Your task to perform on an android device: toggle notifications settings in the gmail app Image 0: 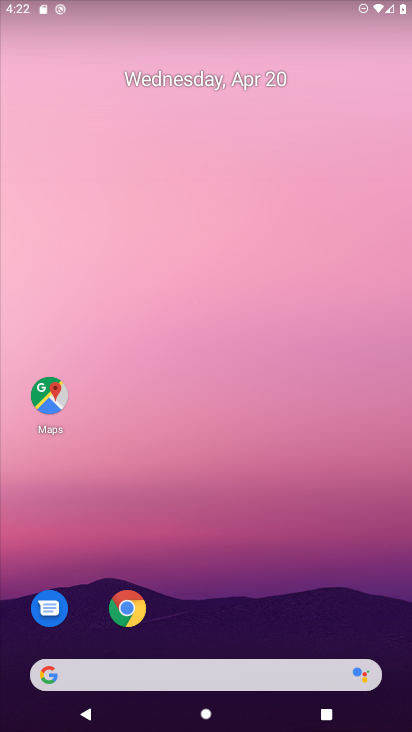
Step 0: drag from (340, 594) to (315, 75)
Your task to perform on an android device: toggle notifications settings in the gmail app Image 1: 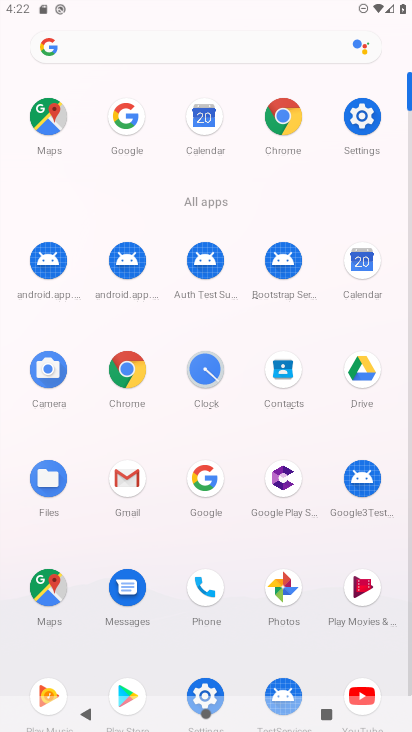
Step 1: click (130, 474)
Your task to perform on an android device: toggle notifications settings in the gmail app Image 2: 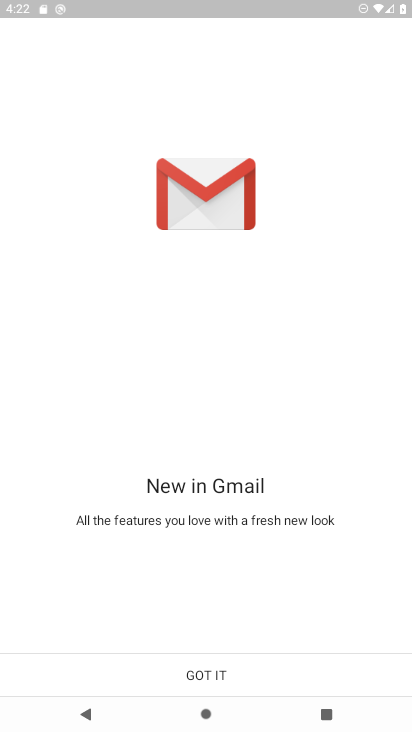
Step 2: click (215, 676)
Your task to perform on an android device: toggle notifications settings in the gmail app Image 3: 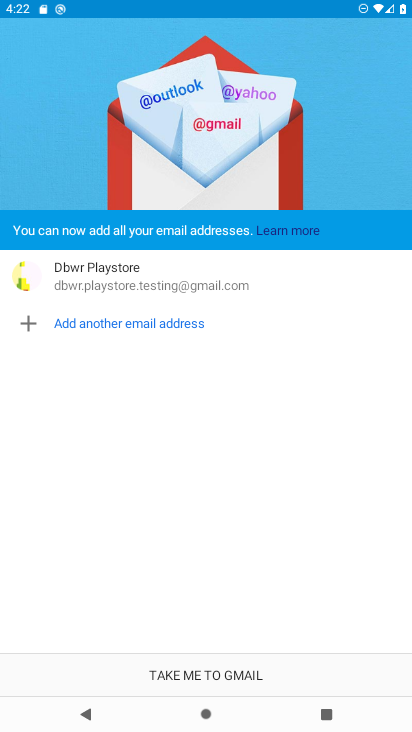
Step 3: click (215, 676)
Your task to perform on an android device: toggle notifications settings in the gmail app Image 4: 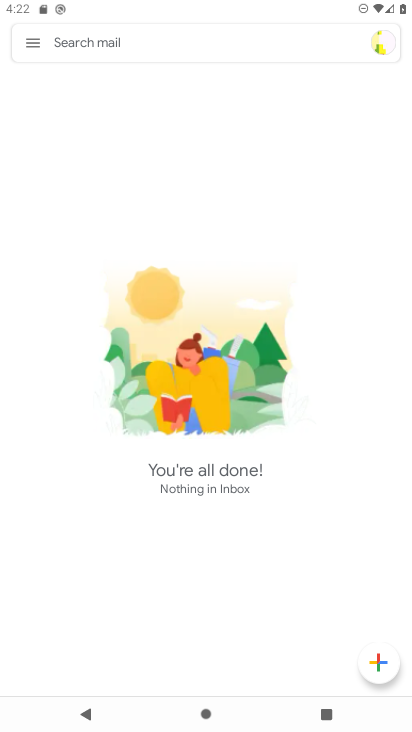
Step 4: click (36, 42)
Your task to perform on an android device: toggle notifications settings in the gmail app Image 5: 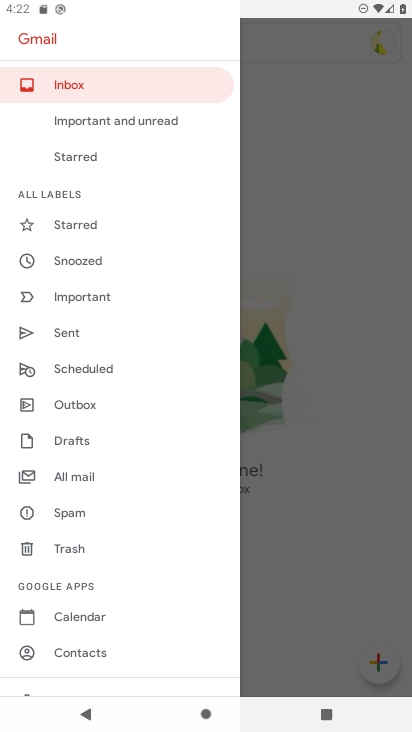
Step 5: drag from (179, 601) to (178, 155)
Your task to perform on an android device: toggle notifications settings in the gmail app Image 6: 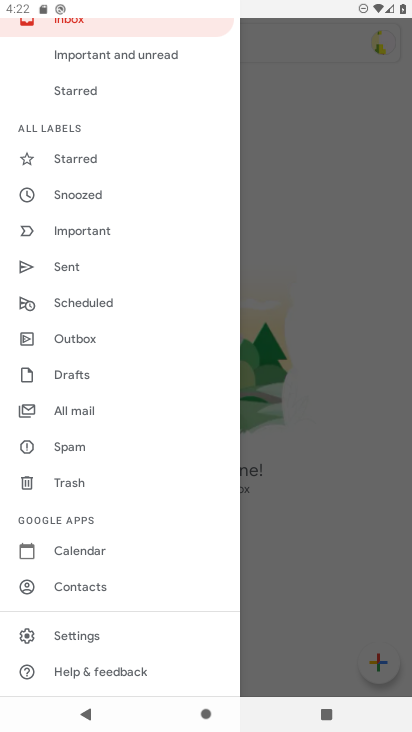
Step 6: click (135, 634)
Your task to perform on an android device: toggle notifications settings in the gmail app Image 7: 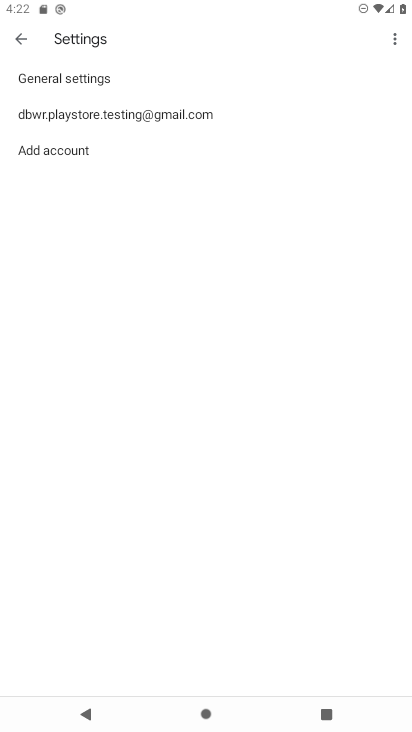
Step 7: click (226, 109)
Your task to perform on an android device: toggle notifications settings in the gmail app Image 8: 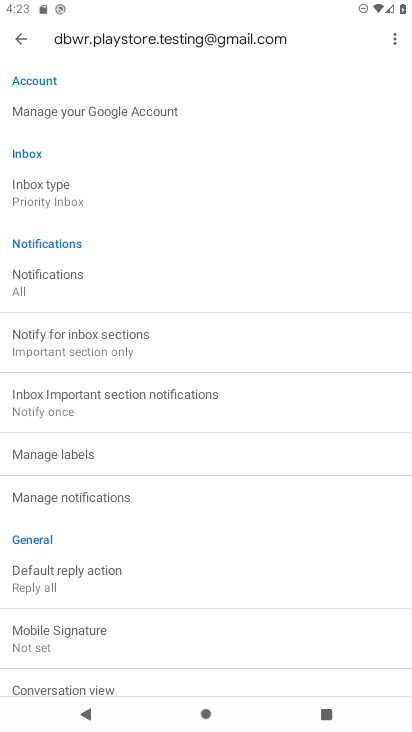
Step 8: click (220, 501)
Your task to perform on an android device: toggle notifications settings in the gmail app Image 9: 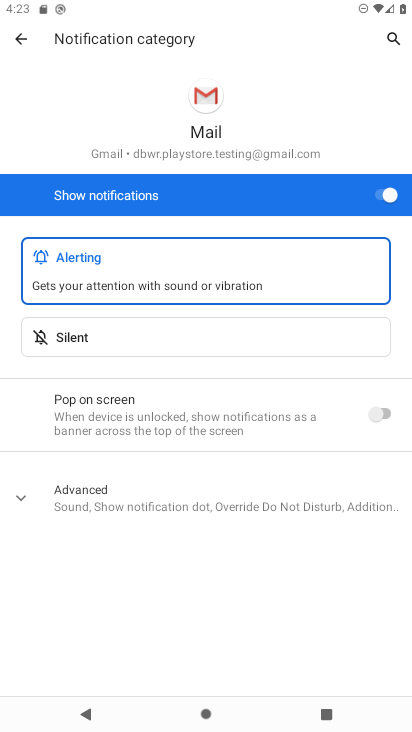
Step 9: click (364, 327)
Your task to perform on an android device: toggle notifications settings in the gmail app Image 10: 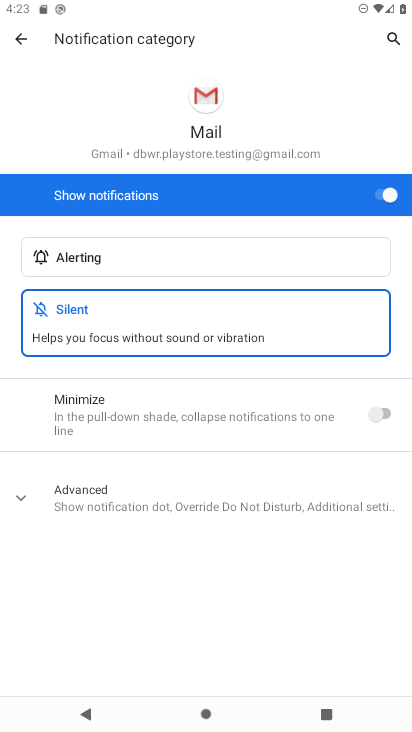
Step 10: click (389, 403)
Your task to perform on an android device: toggle notifications settings in the gmail app Image 11: 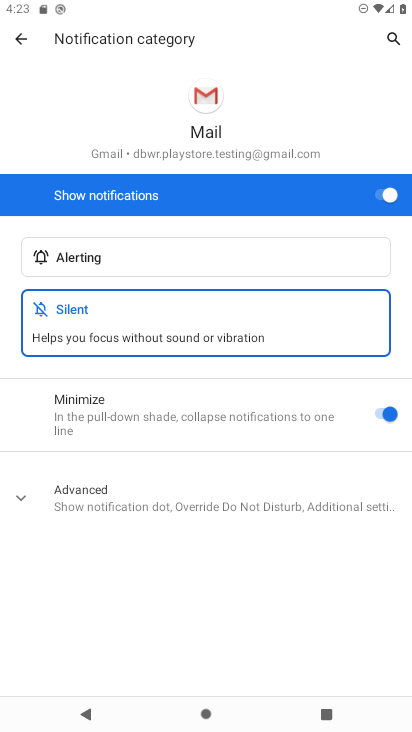
Step 11: task complete